Your task to perform on an android device: set the stopwatch Image 0: 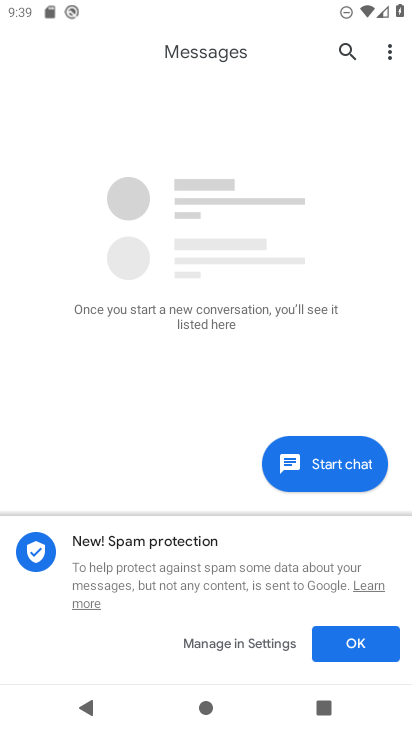
Step 0: press home button
Your task to perform on an android device: set the stopwatch Image 1: 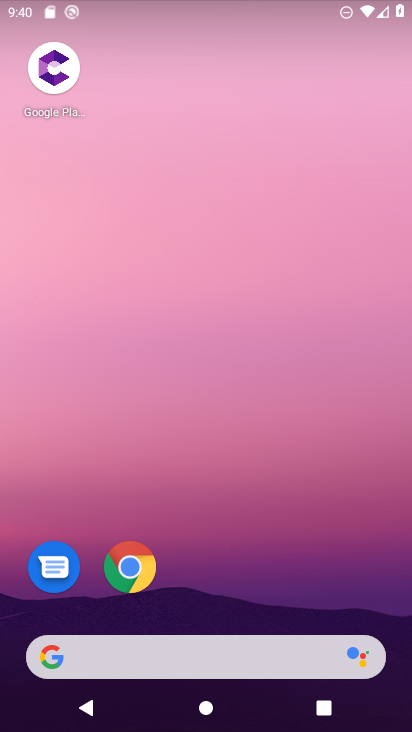
Step 1: drag from (223, 358) to (279, 5)
Your task to perform on an android device: set the stopwatch Image 2: 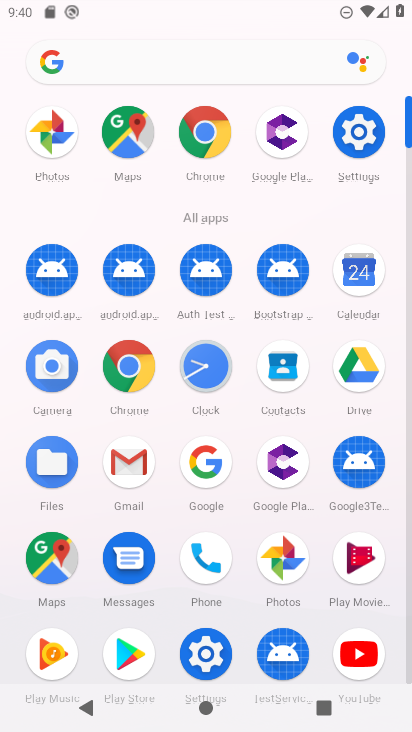
Step 2: click (187, 386)
Your task to perform on an android device: set the stopwatch Image 3: 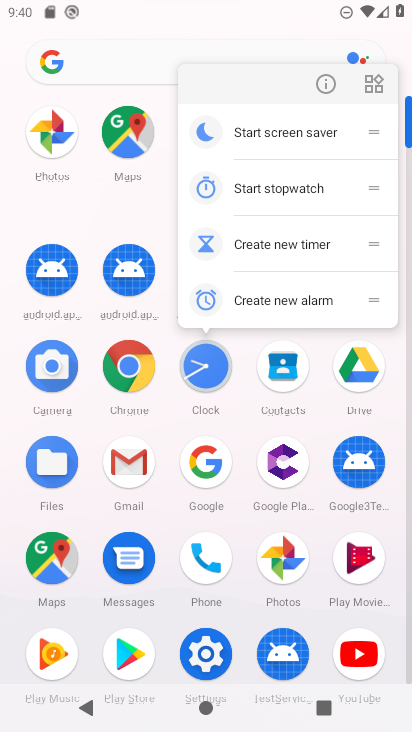
Step 3: click (208, 368)
Your task to perform on an android device: set the stopwatch Image 4: 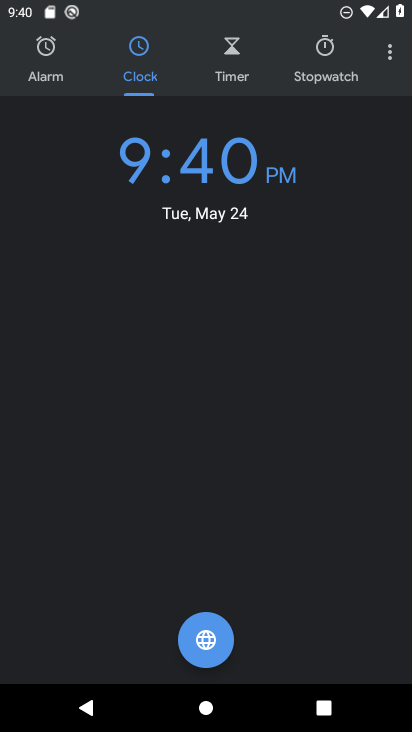
Step 4: click (338, 65)
Your task to perform on an android device: set the stopwatch Image 5: 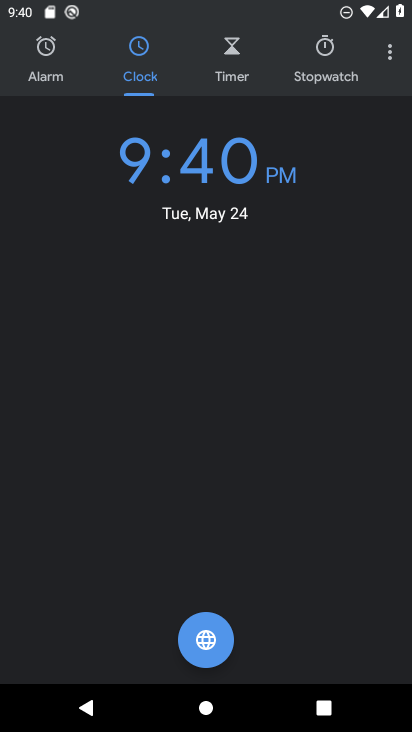
Step 5: click (327, 47)
Your task to perform on an android device: set the stopwatch Image 6: 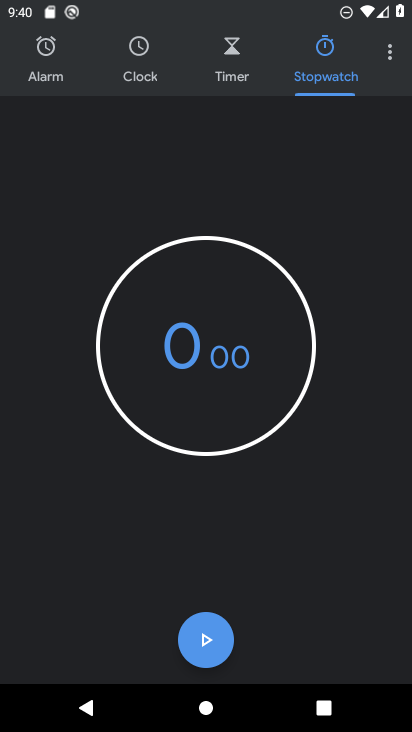
Step 6: click (213, 631)
Your task to perform on an android device: set the stopwatch Image 7: 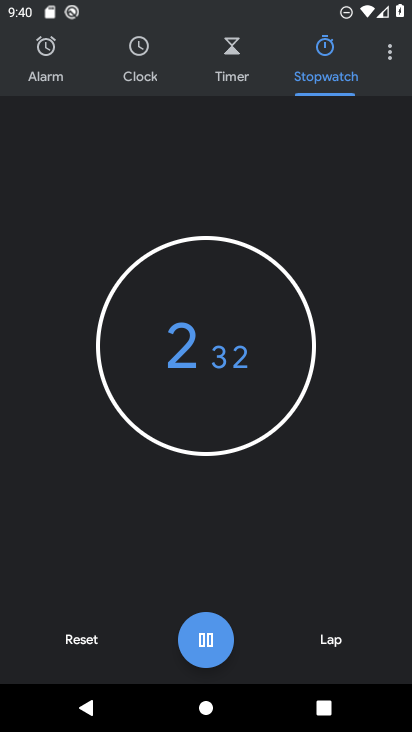
Step 7: task complete